Your task to perform on an android device: turn pop-ups off in chrome Image 0: 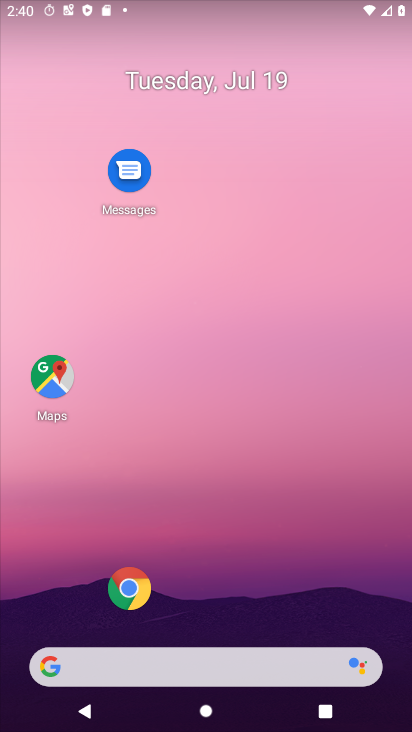
Step 0: click (122, 594)
Your task to perform on an android device: turn pop-ups off in chrome Image 1: 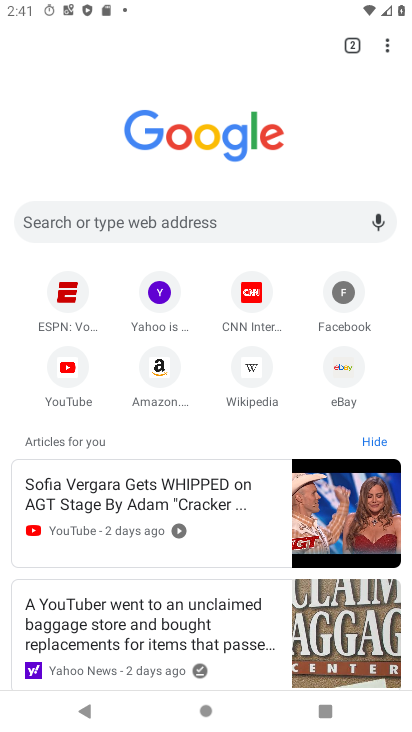
Step 1: click (383, 43)
Your task to perform on an android device: turn pop-ups off in chrome Image 2: 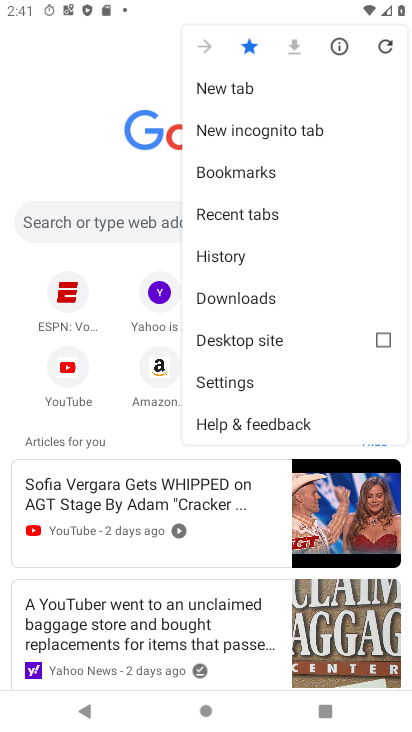
Step 2: click (227, 383)
Your task to perform on an android device: turn pop-ups off in chrome Image 3: 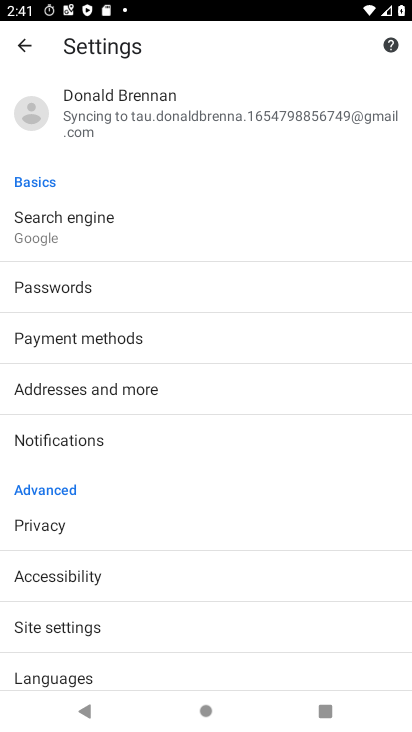
Step 3: click (62, 634)
Your task to perform on an android device: turn pop-ups off in chrome Image 4: 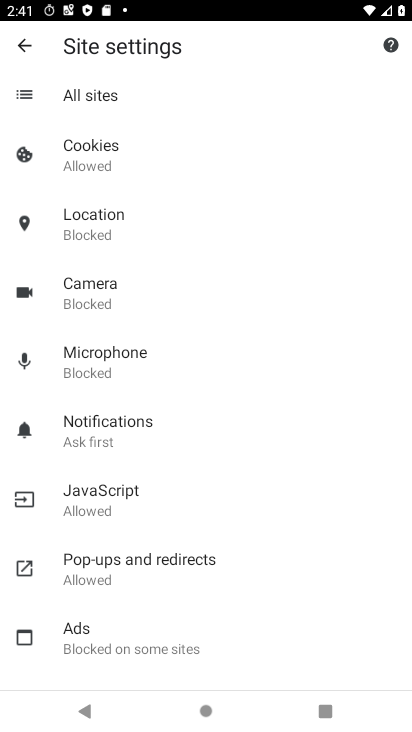
Step 4: click (114, 570)
Your task to perform on an android device: turn pop-ups off in chrome Image 5: 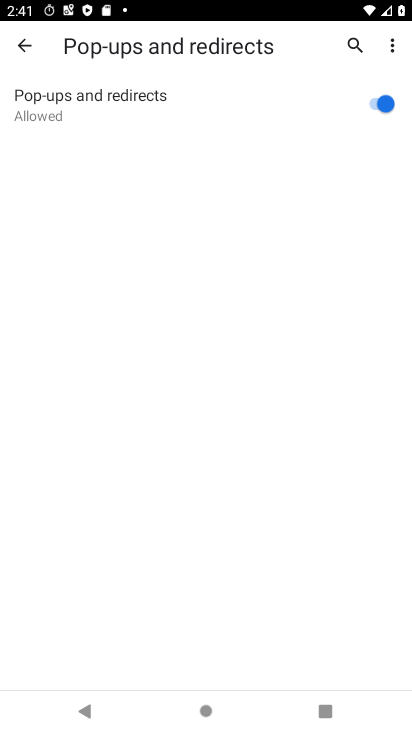
Step 5: task complete